Your task to perform on an android device: toggle data saver in the chrome app Image 0: 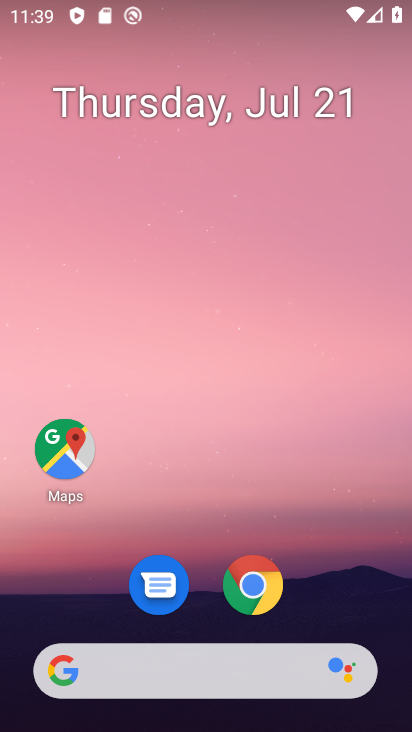
Step 0: click (254, 590)
Your task to perform on an android device: toggle data saver in the chrome app Image 1: 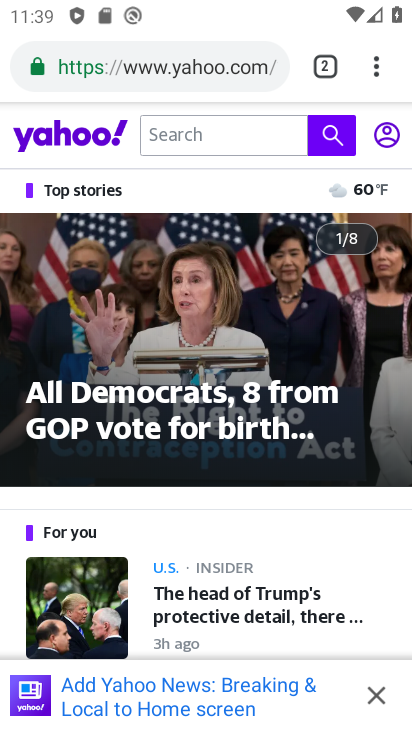
Step 1: drag from (377, 63) to (252, 587)
Your task to perform on an android device: toggle data saver in the chrome app Image 2: 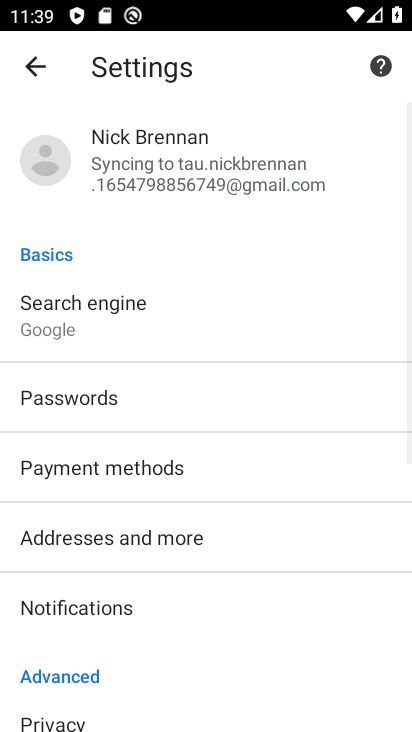
Step 2: drag from (234, 620) to (269, 62)
Your task to perform on an android device: toggle data saver in the chrome app Image 3: 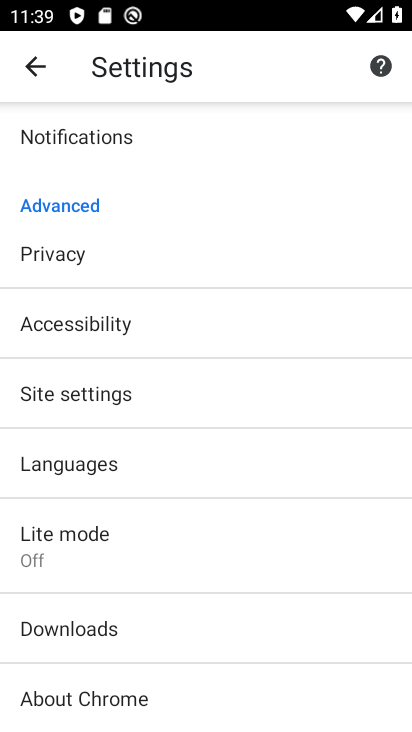
Step 3: click (81, 552)
Your task to perform on an android device: toggle data saver in the chrome app Image 4: 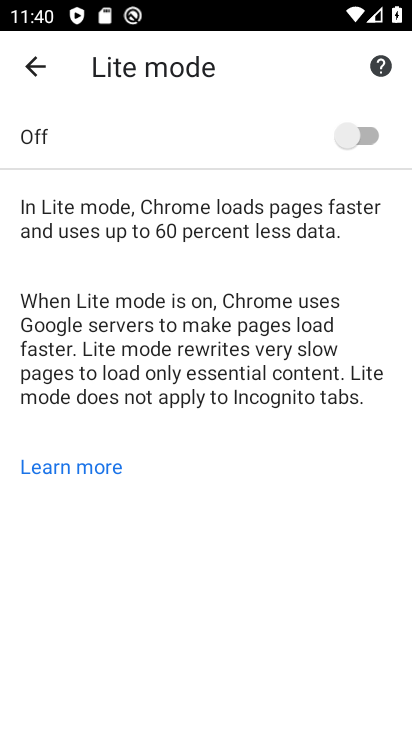
Step 4: click (369, 130)
Your task to perform on an android device: toggle data saver in the chrome app Image 5: 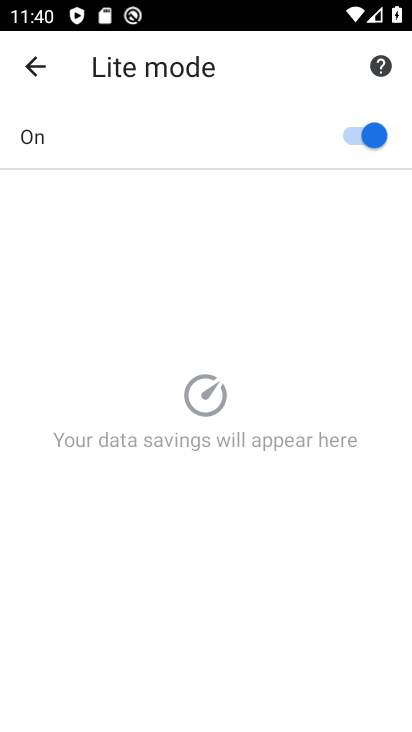
Step 5: task complete